Your task to perform on an android device: Open Youtube and go to the subscriptions tab Image 0: 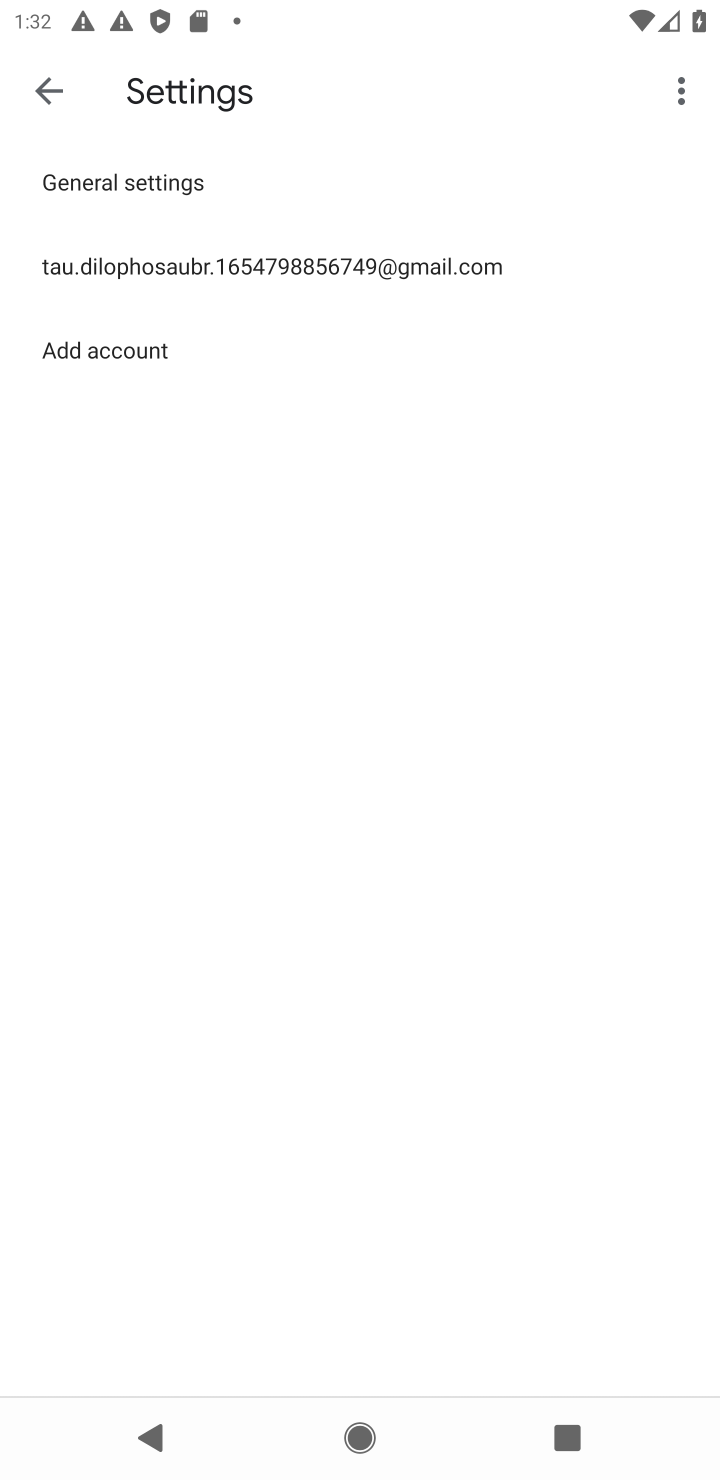
Step 0: press home button
Your task to perform on an android device: Open Youtube and go to the subscriptions tab Image 1: 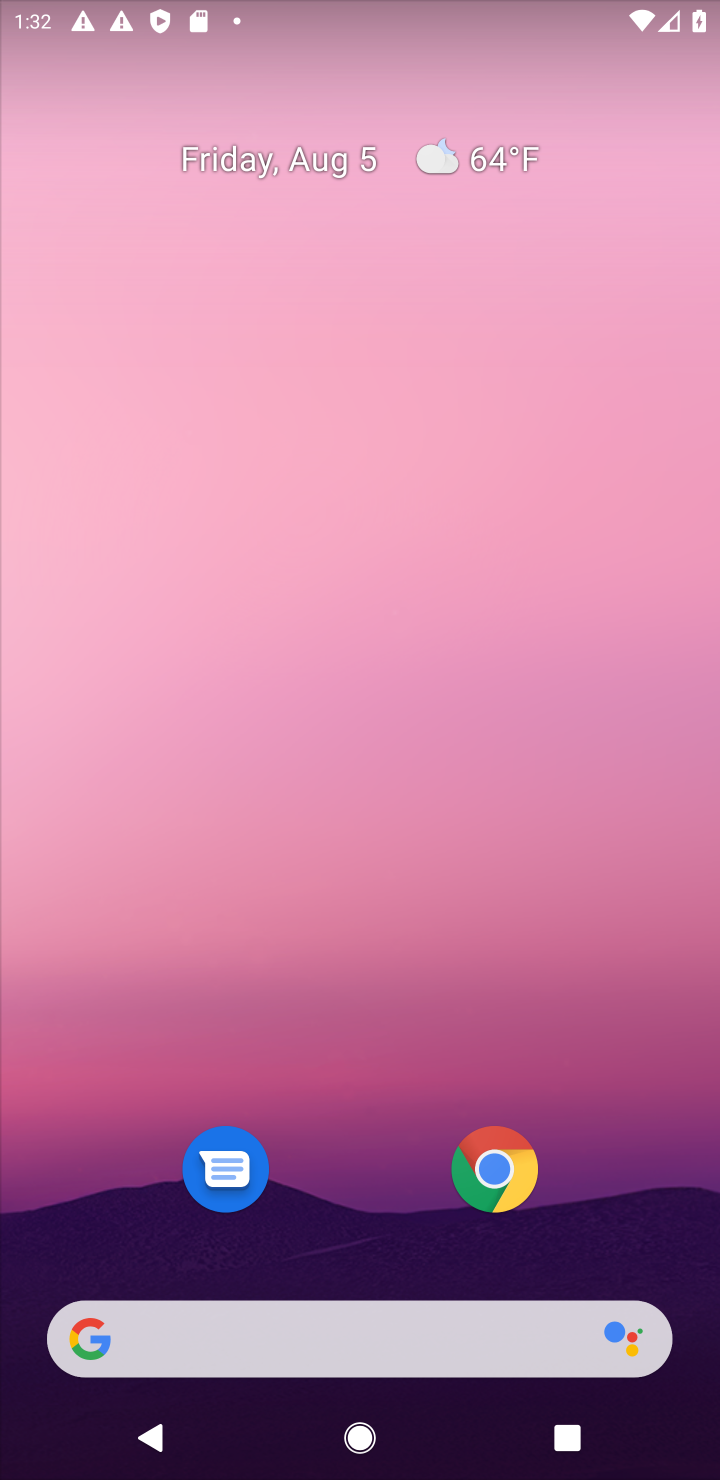
Step 1: drag from (387, 1156) to (338, 215)
Your task to perform on an android device: Open Youtube and go to the subscriptions tab Image 2: 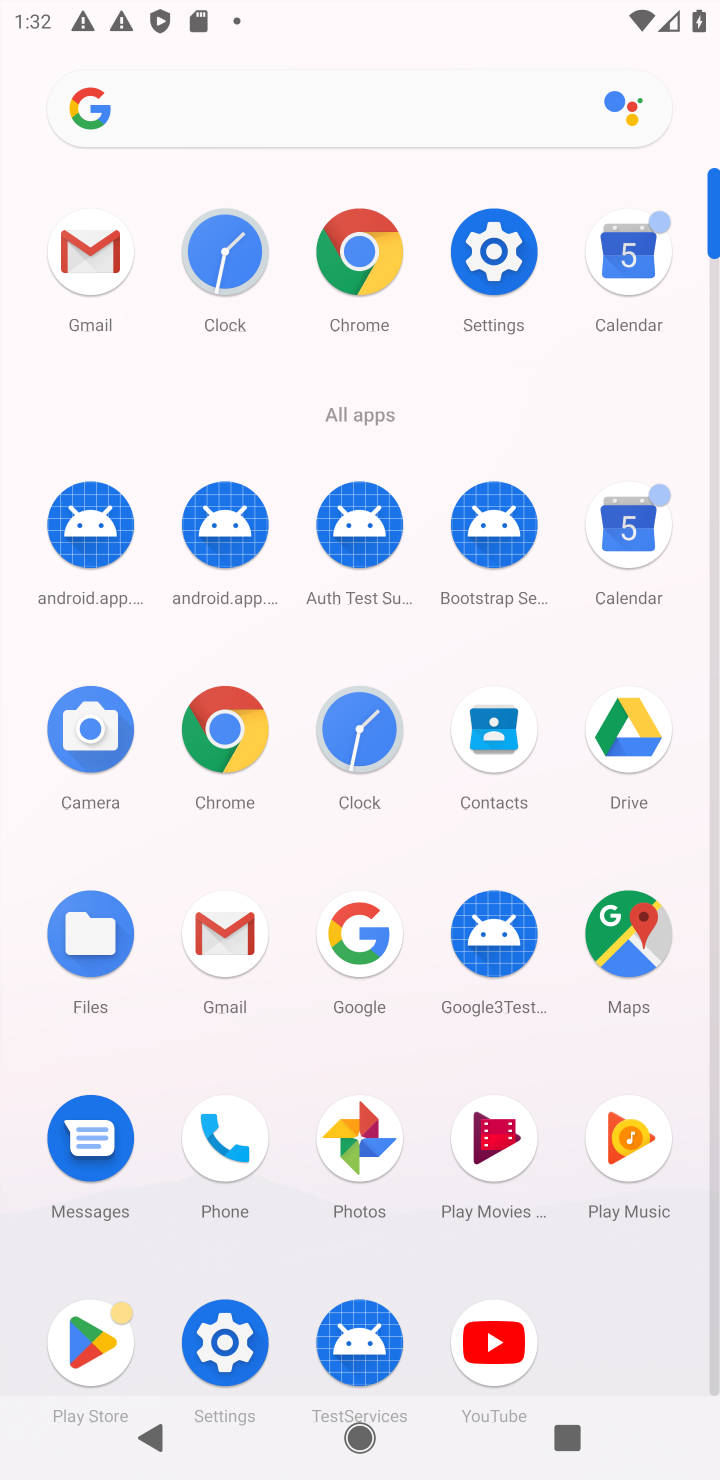
Step 2: click (481, 1294)
Your task to perform on an android device: Open Youtube and go to the subscriptions tab Image 3: 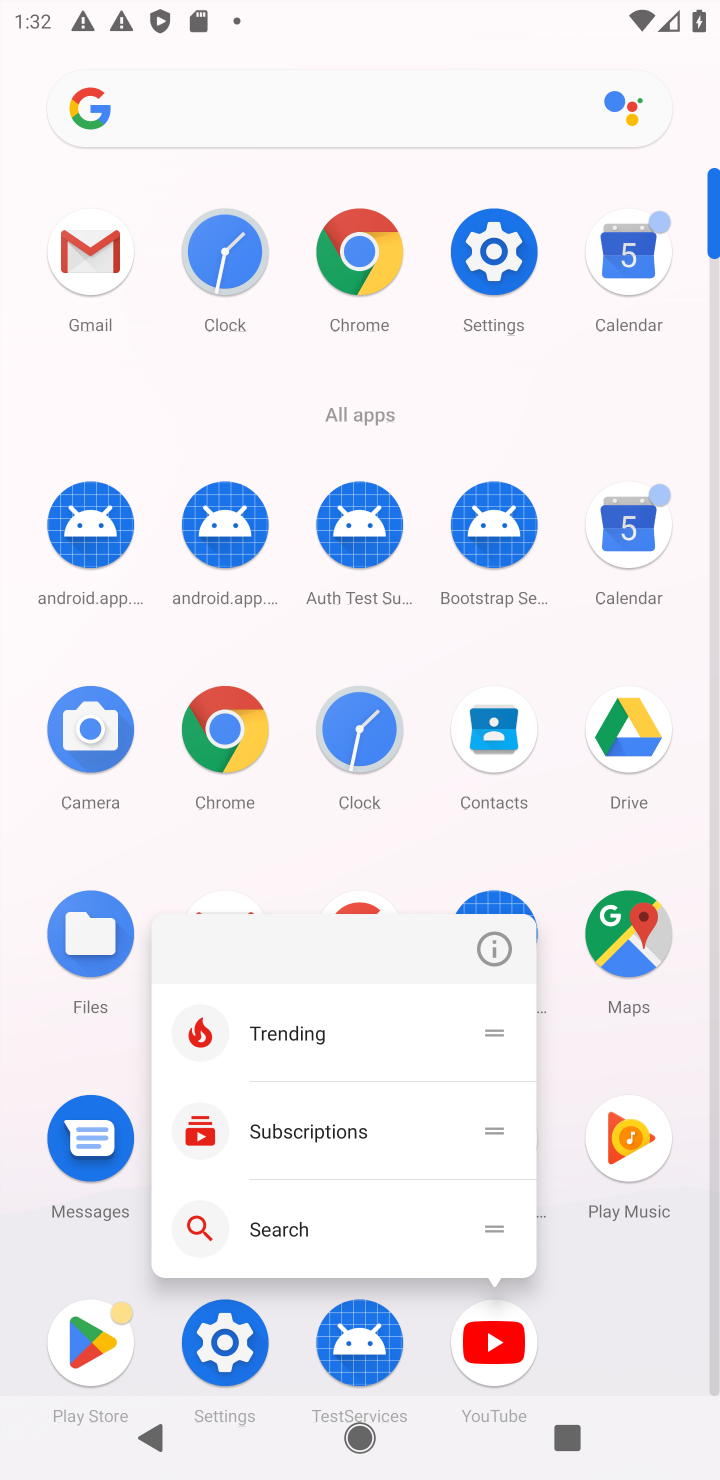
Step 3: click (475, 1299)
Your task to perform on an android device: Open Youtube and go to the subscriptions tab Image 4: 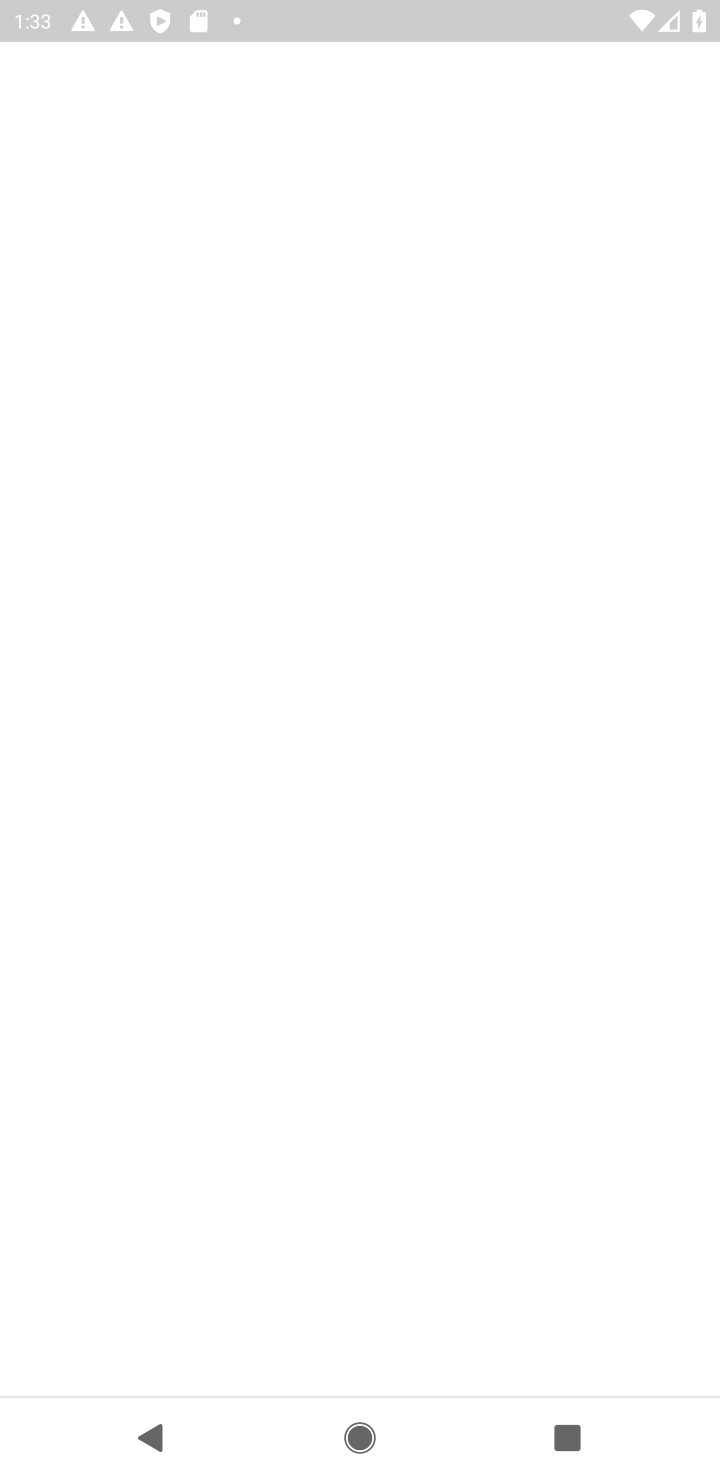
Step 4: task complete